Your task to perform on an android device: Go to privacy settings Image 0: 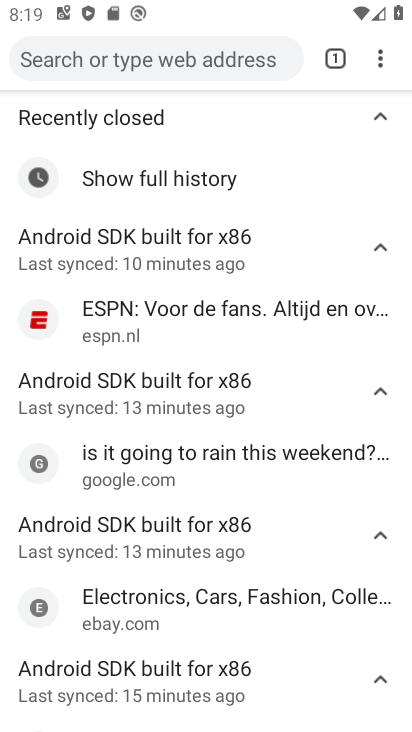
Step 0: press back button
Your task to perform on an android device: Go to privacy settings Image 1: 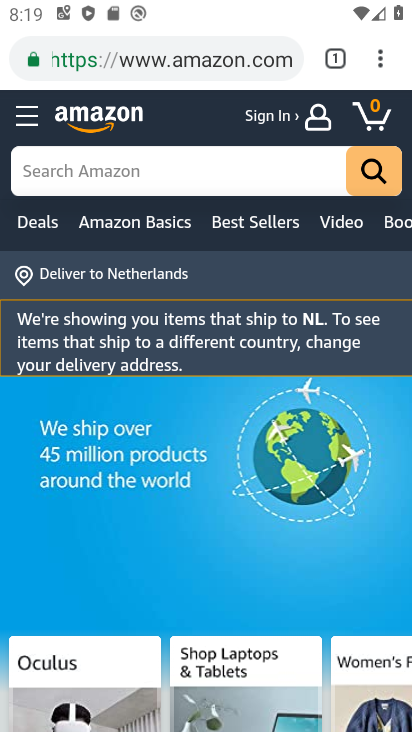
Step 1: drag from (375, 59) to (208, 619)
Your task to perform on an android device: Go to privacy settings Image 2: 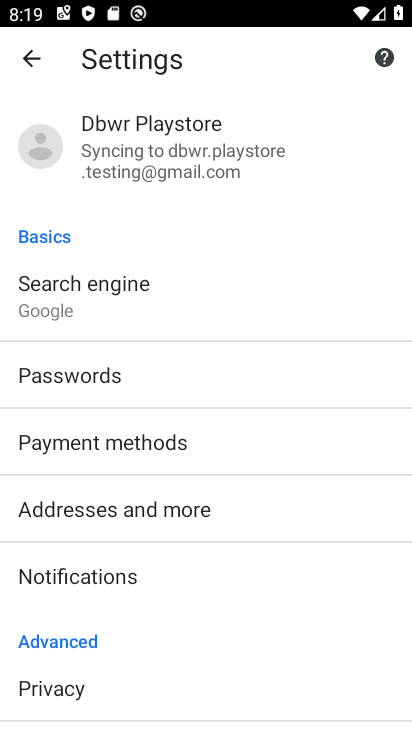
Step 2: click (92, 680)
Your task to perform on an android device: Go to privacy settings Image 3: 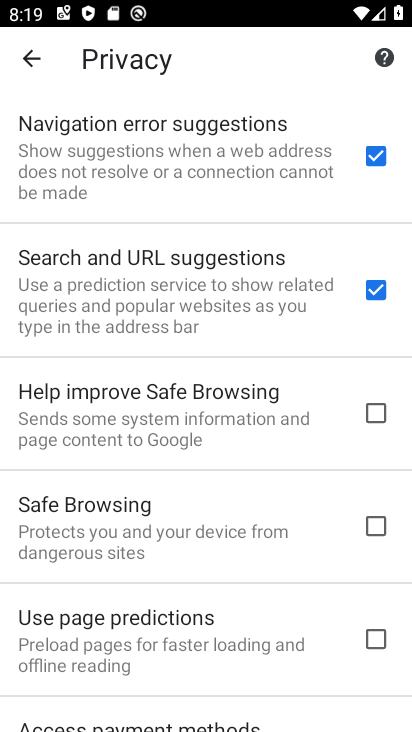
Step 3: task complete